Your task to perform on an android device: install app "eBay: The shopping marketplace" Image 0: 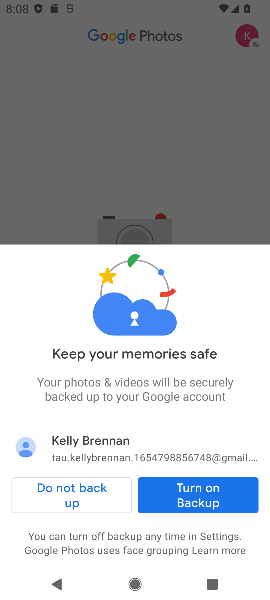
Step 0: press home button
Your task to perform on an android device: install app "eBay: The shopping marketplace" Image 1: 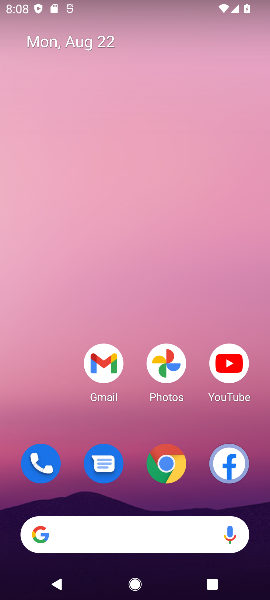
Step 1: drag from (127, 482) to (183, 12)
Your task to perform on an android device: install app "eBay: The shopping marketplace" Image 2: 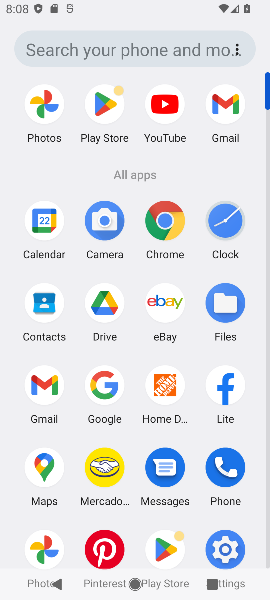
Step 2: click (100, 105)
Your task to perform on an android device: install app "eBay: The shopping marketplace" Image 3: 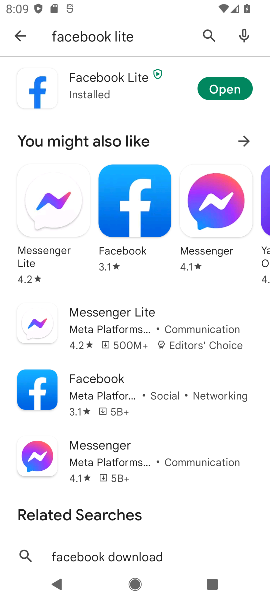
Step 3: click (22, 35)
Your task to perform on an android device: install app "eBay: The shopping marketplace" Image 4: 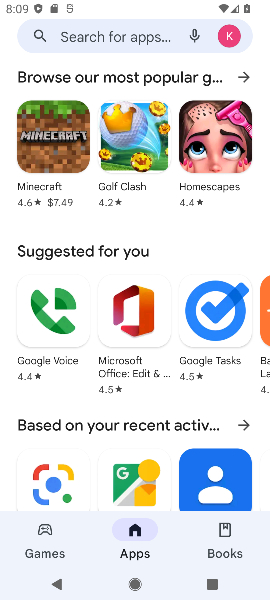
Step 4: click (82, 35)
Your task to perform on an android device: install app "eBay: The shopping marketplace" Image 5: 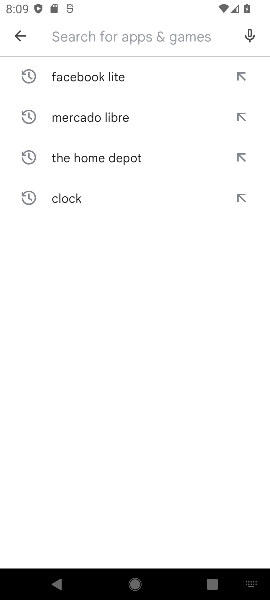
Step 5: type "eBay"
Your task to perform on an android device: install app "eBay: The shopping marketplace" Image 6: 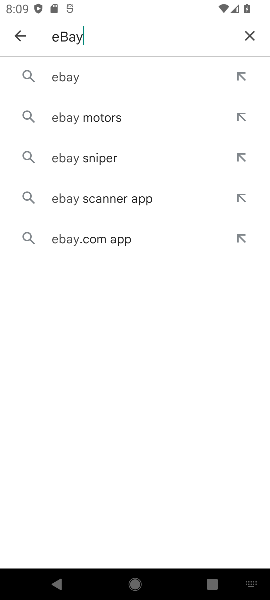
Step 6: click (63, 80)
Your task to perform on an android device: install app "eBay: The shopping marketplace" Image 7: 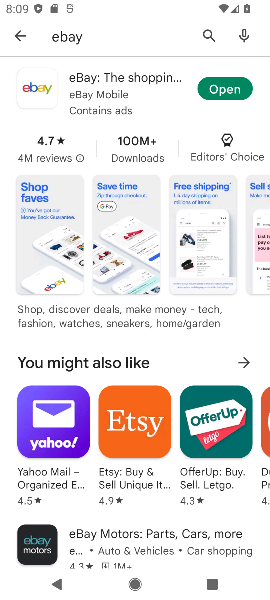
Step 7: click (240, 80)
Your task to perform on an android device: install app "eBay: The shopping marketplace" Image 8: 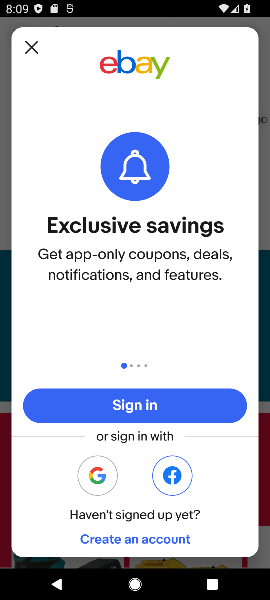
Step 8: task complete